Your task to perform on an android device: move a message to another label in the gmail app Image 0: 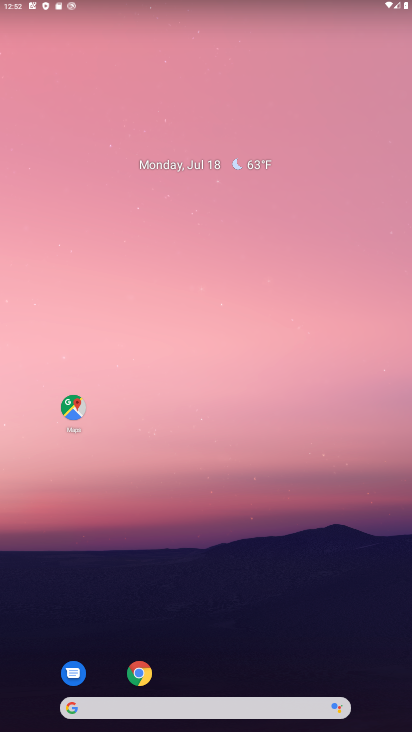
Step 0: drag from (264, 634) to (260, 163)
Your task to perform on an android device: move a message to another label in the gmail app Image 1: 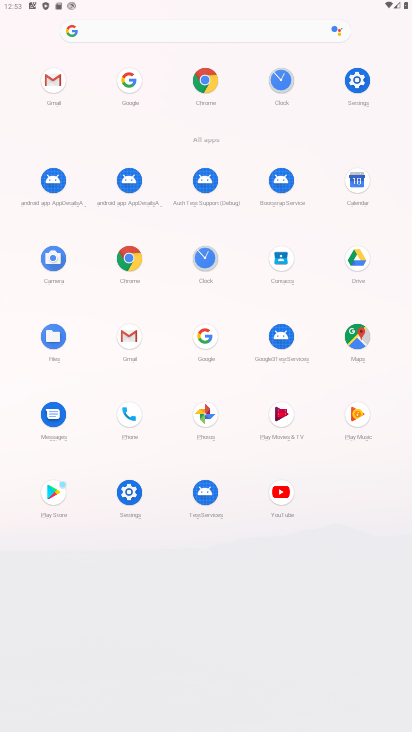
Step 1: click (127, 334)
Your task to perform on an android device: move a message to another label in the gmail app Image 2: 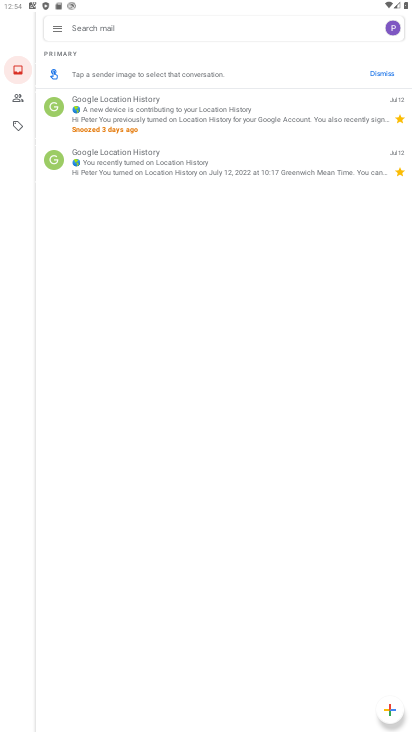
Step 2: click (117, 121)
Your task to perform on an android device: move a message to another label in the gmail app Image 3: 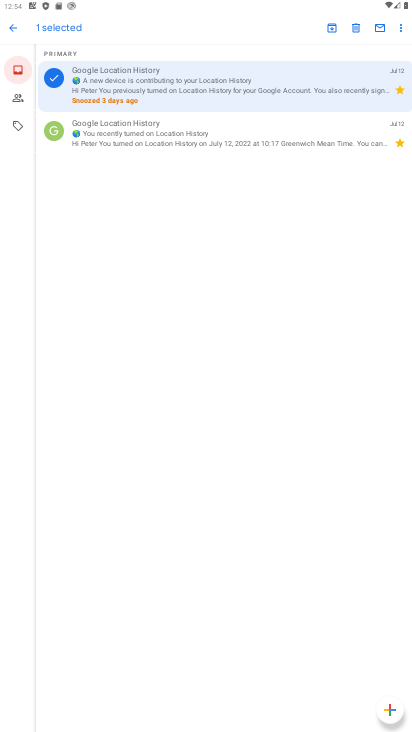
Step 3: click (396, 29)
Your task to perform on an android device: move a message to another label in the gmail app Image 4: 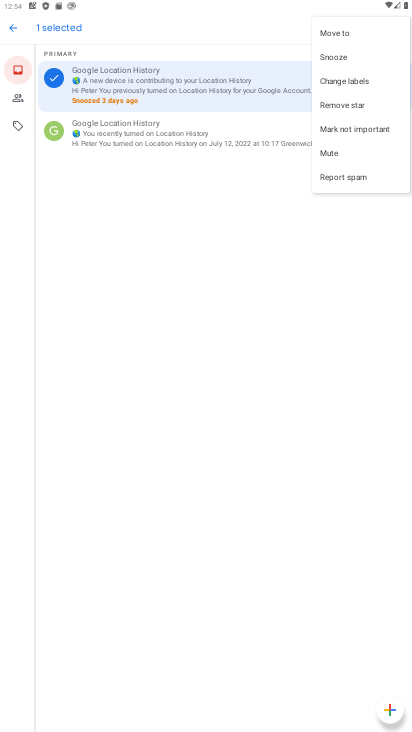
Step 4: click (352, 40)
Your task to perform on an android device: move a message to another label in the gmail app Image 5: 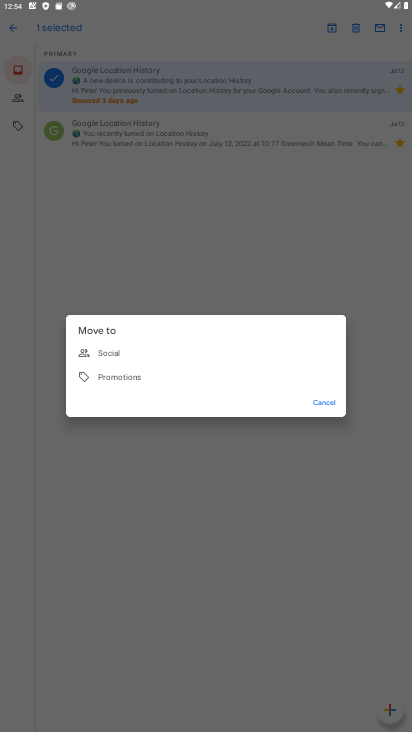
Step 5: task complete